Your task to perform on an android device: turn smart compose on in the gmail app Image 0: 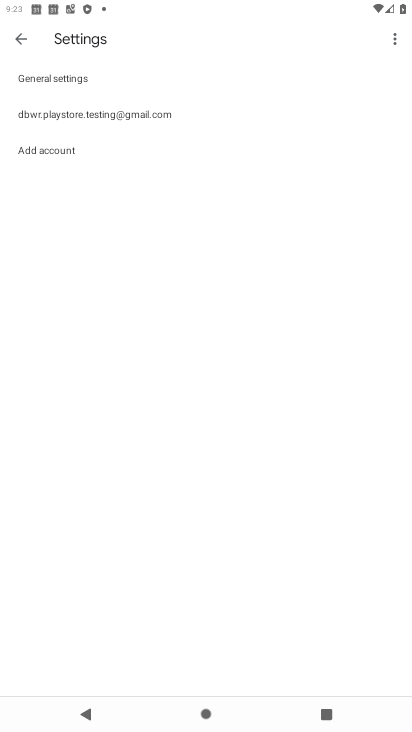
Step 0: press home button
Your task to perform on an android device: turn smart compose on in the gmail app Image 1: 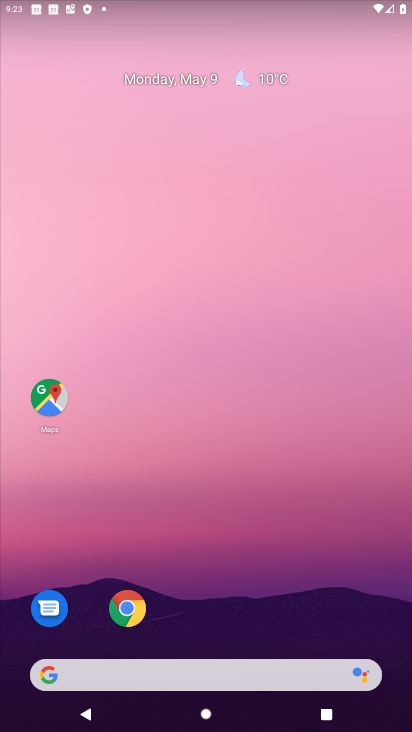
Step 1: drag from (214, 543) to (234, 79)
Your task to perform on an android device: turn smart compose on in the gmail app Image 2: 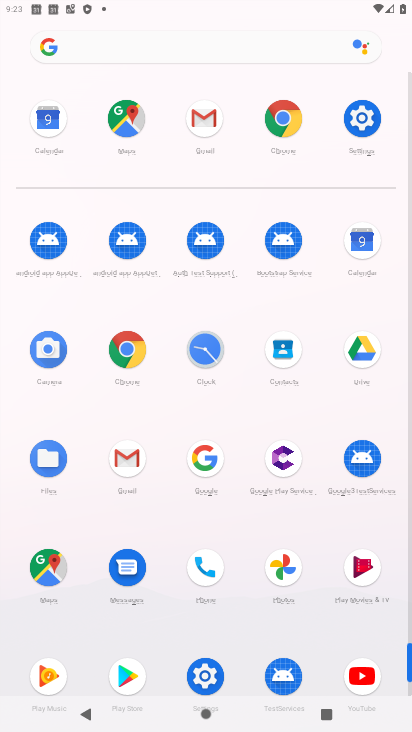
Step 2: click (198, 118)
Your task to perform on an android device: turn smart compose on in the gmail app Image 3: 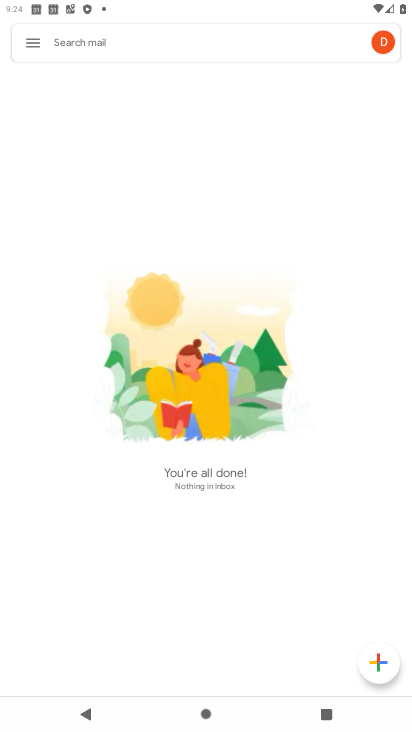
Step 3: click (26, 39)
Your task to perform on an android device: turn smart compose on in the gmail app Image 4: 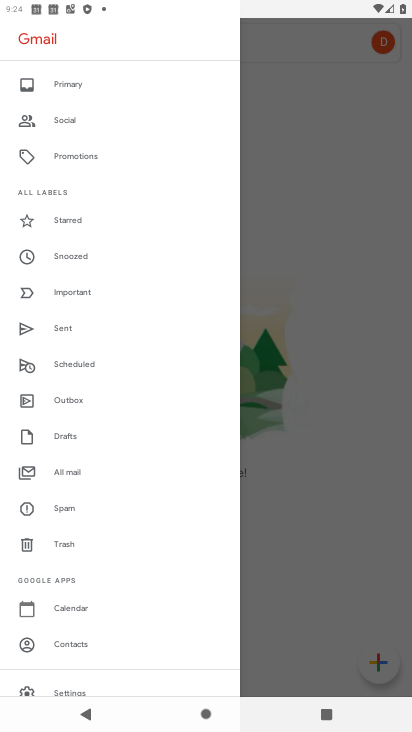
Step 4: drag from (15, 540) to (129, 60)
Your task to perform on an android device: turn smart compose on in the gmail app Image 5: 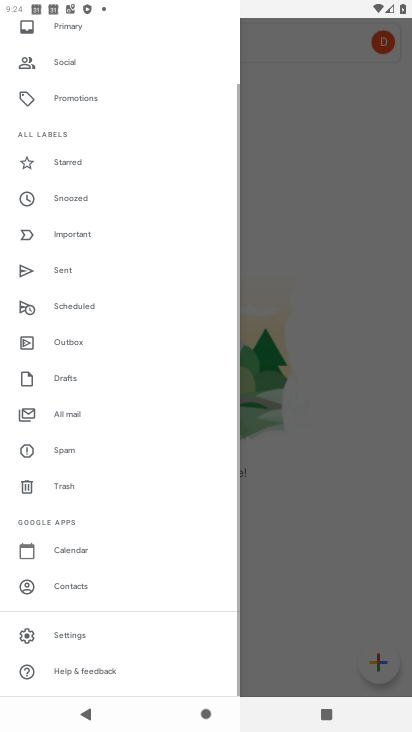
Step 5: click (56, 627)
Your task to perform on an android device: turn smart compose on in the gmail app Image 6: 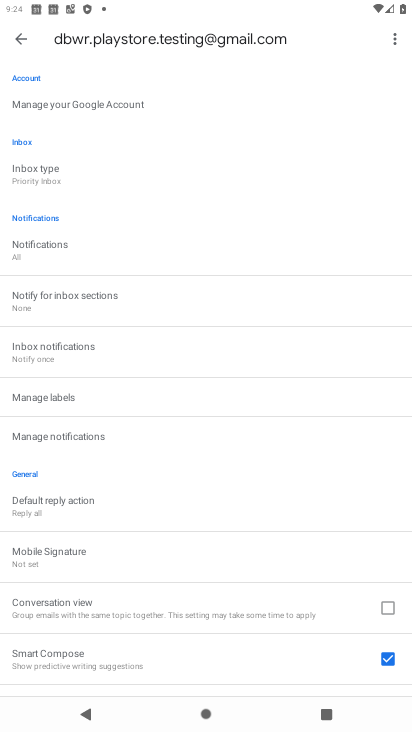
Step 6: task complete